Your task to perform on an android device: Open accessibility settings Image 0: 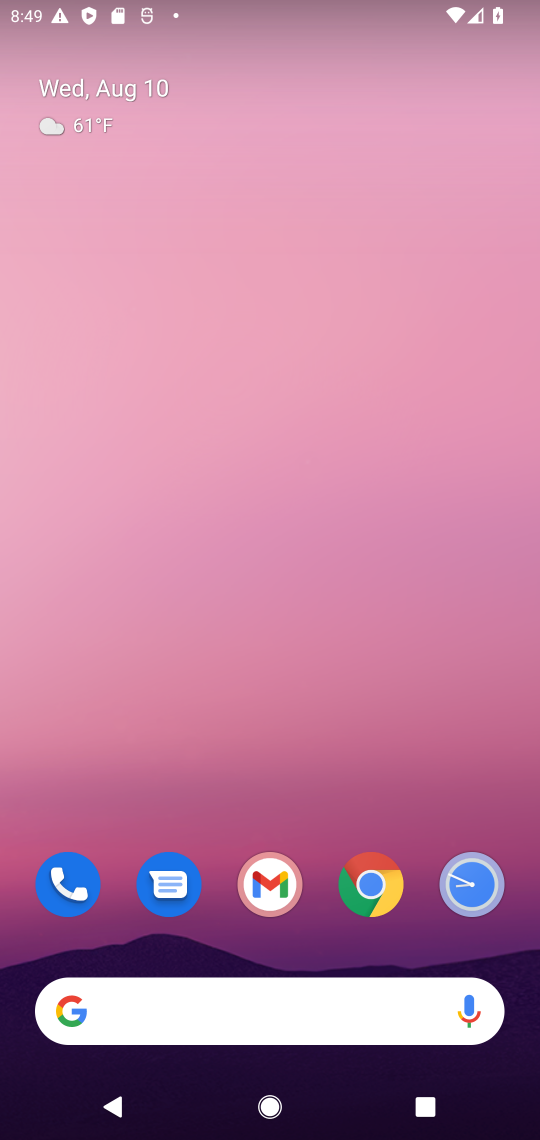
Step 0: drag from (82, 1102) to (230, 225)
Your task to perform on an android device: Open accessibility settings Image 1: 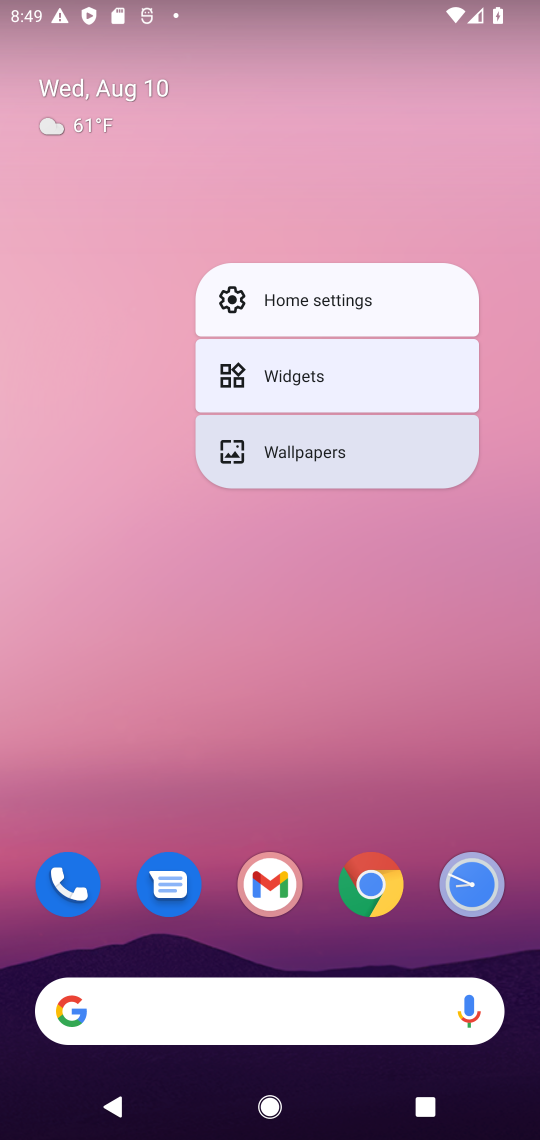
Step 1: drag from (35, 1085) to (290, 102)
Your task to perform on an android device: Open accessibility settings Image 2: 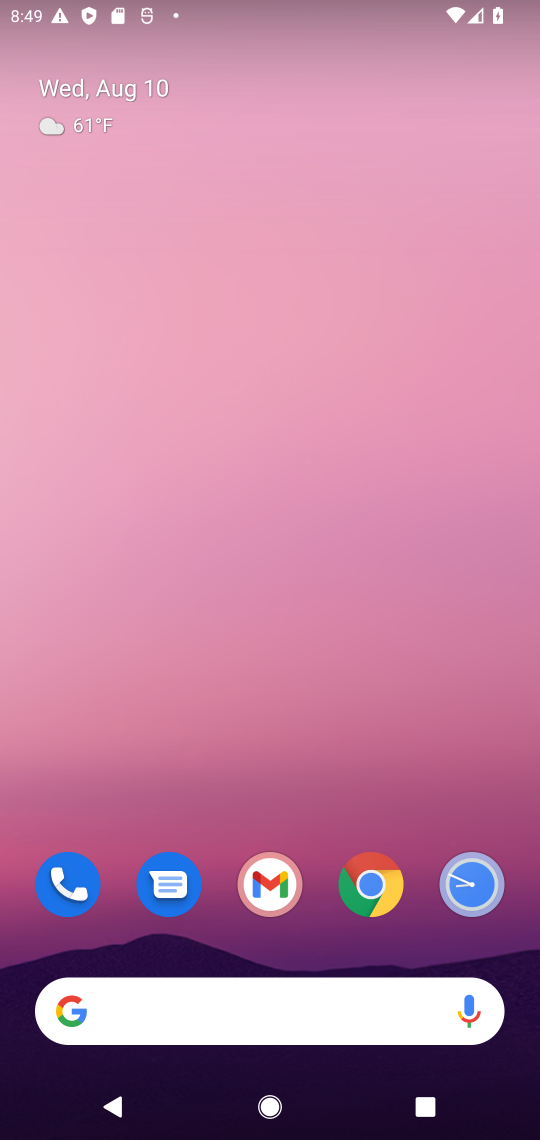
Step 2: drag from (56, 1005) to (308, 243)
Your task to perform on an android device: Open accessibility settings Image 3: 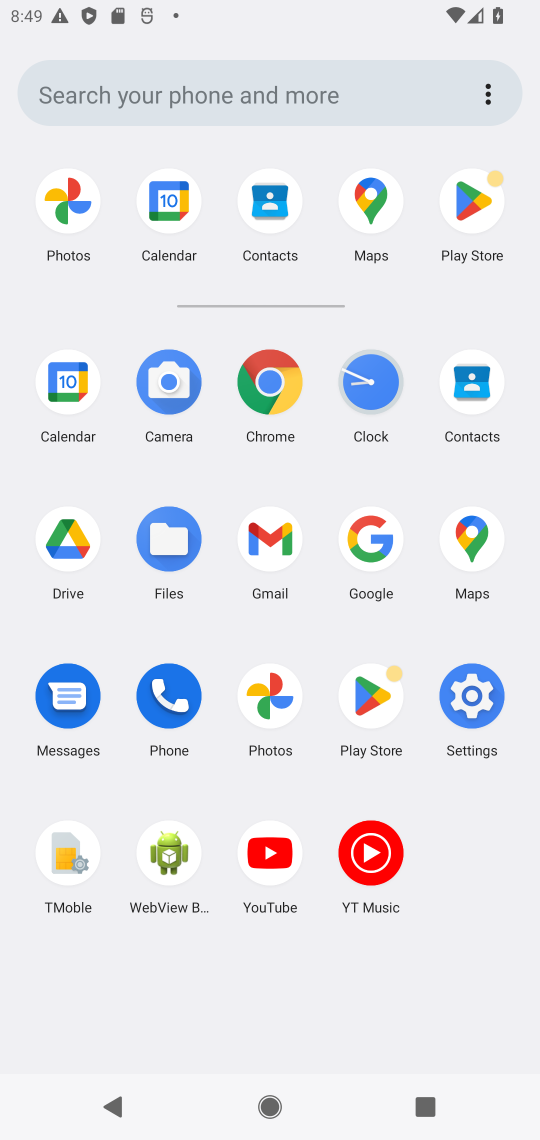
Step 3: click (467, 696)
Your task to perform on an android device: Open accessibility settings Image 4: 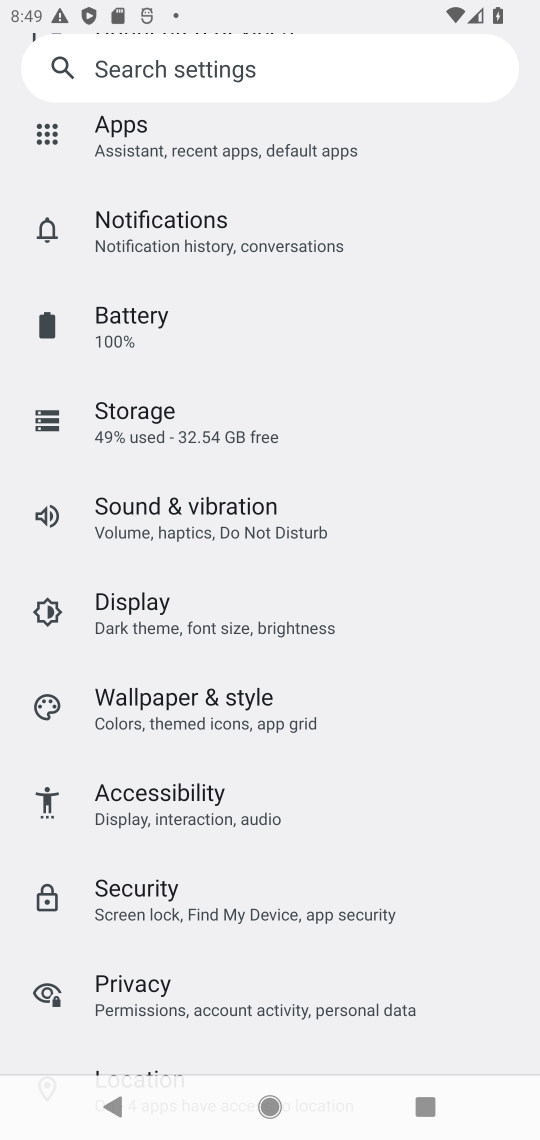
Step 4: click (114, 789)
Your task to perform on an android device: Open accessibility settings Image 5: 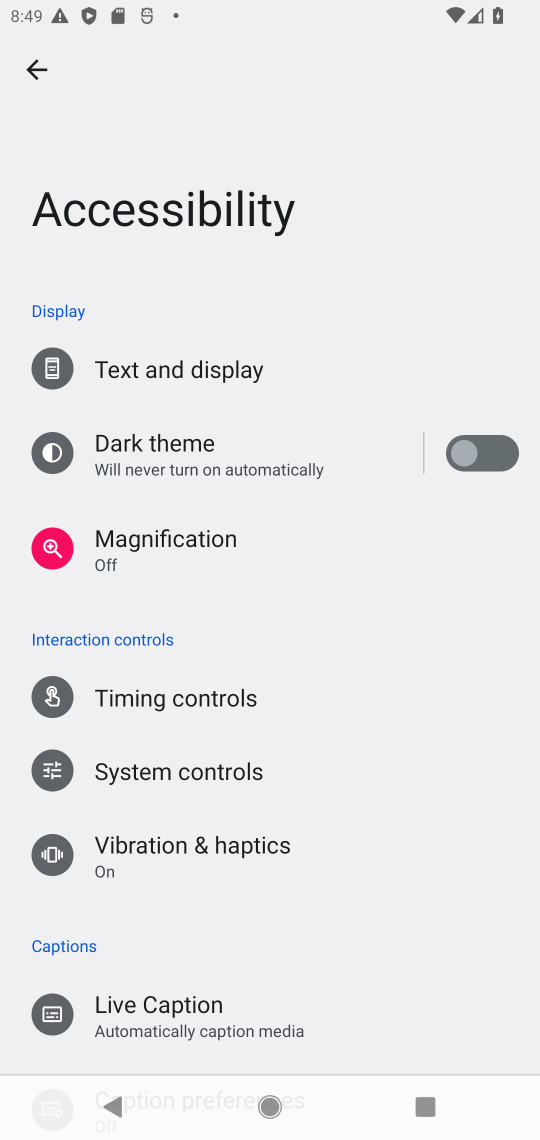
Step 5: task complete